Your task to perform on an android device: turn off location history Image 0: 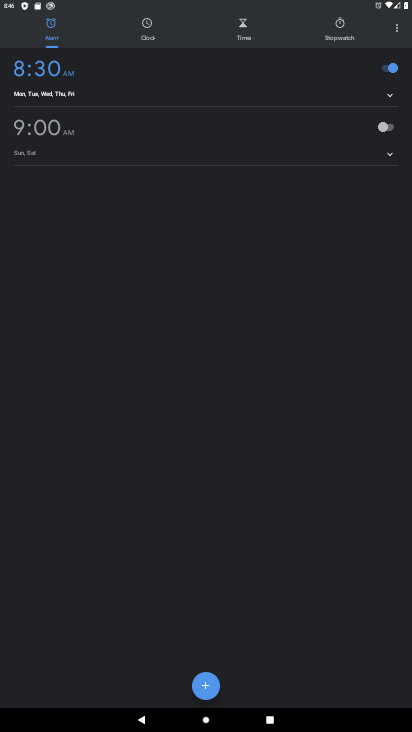
Step 0: press home button
Your task to perform on an android device: turn off location history Image 1: 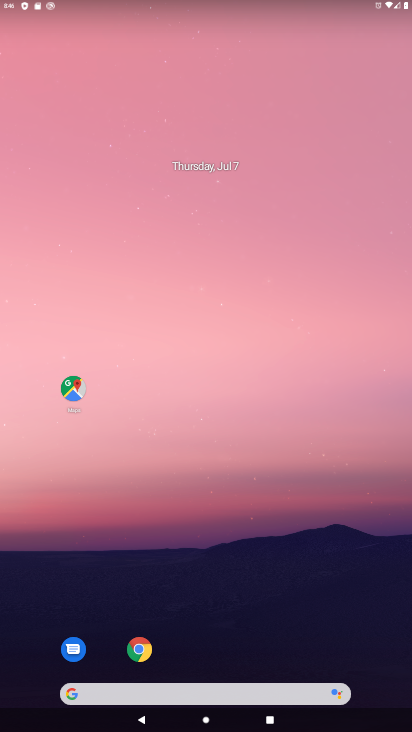
Step 1: drag from (301, 679) to (360, 60)
Your task to perform on an android device: turn off location history Image 2: 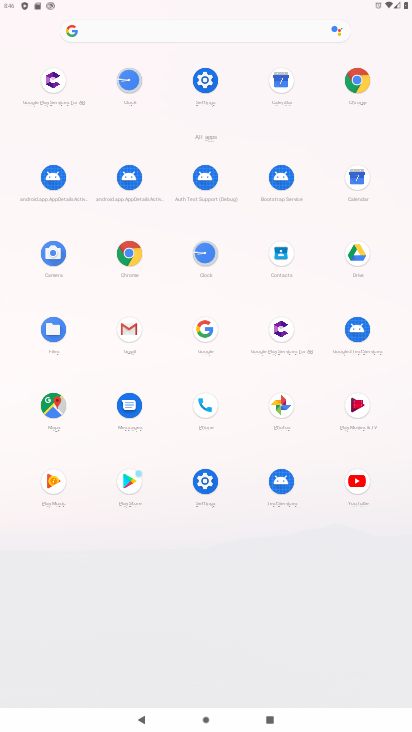
Step 2: click (207, 81)
Your task to perform on an android device: turn off location history Image 3: 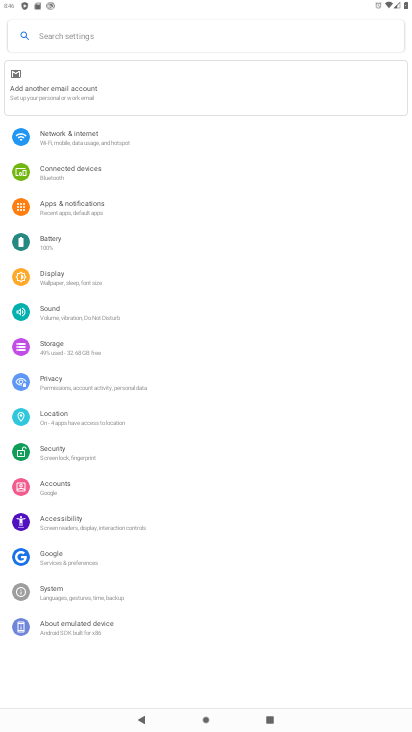
Step 3: click (101, 425)
Your task to perform on an android device: turn off location history Image 4: 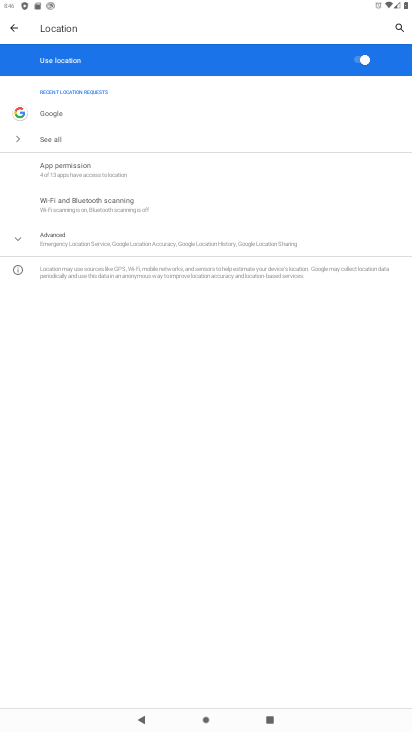
Step 4: click (78, 245)
Your task to perform on an android device: turn off location history Image 5: 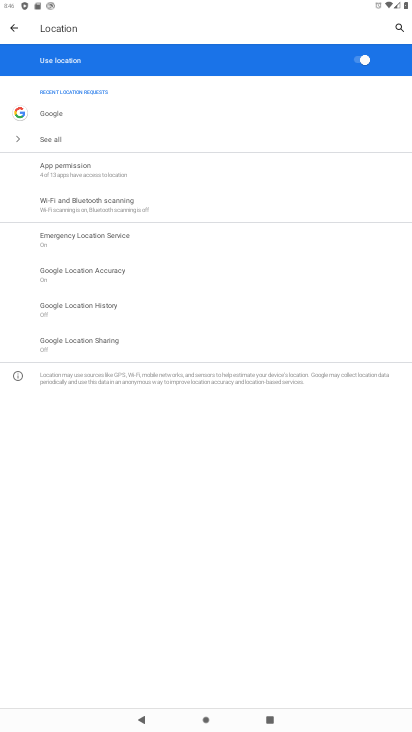
Step 5: click (109, 308)
Your task to perform on an android device: turn off location history Image 6: 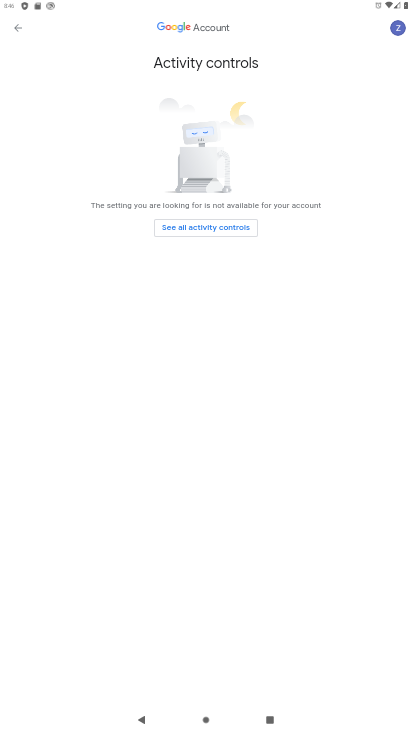
Step 6: click (212, 233)
Your task to perform on an android device: turn off location history Image 7: 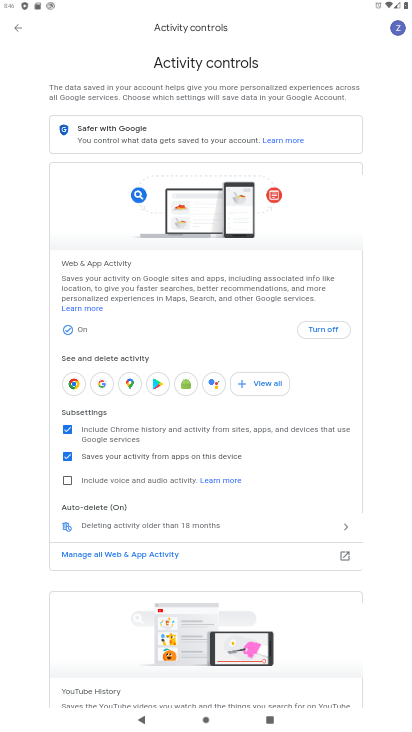
Step 7: click (326, 327)
Your task to perform on an android device: turn off location history Image 8: 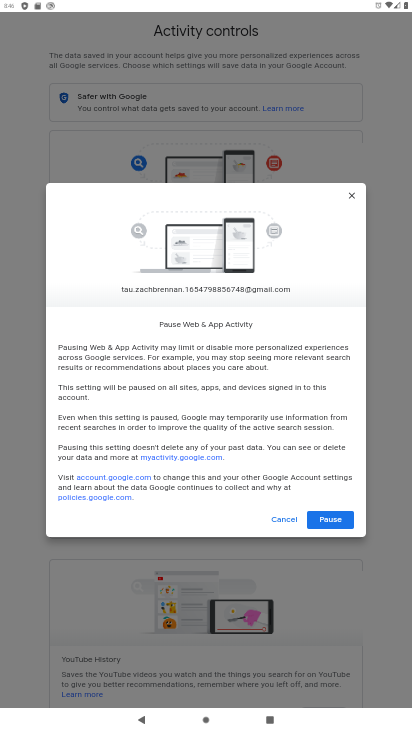
Step 8: click (319, 521)
Your task to perform on an android device: turn off location history Image 9: 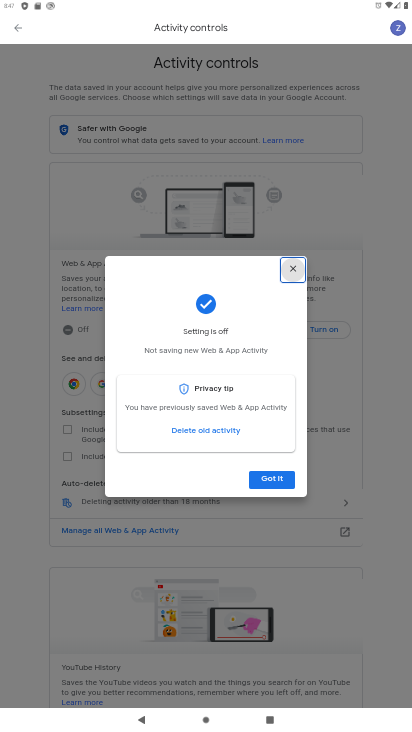
Step 9: click (275, 479)
Your task to perform on an android device: turn off location history Image 10: 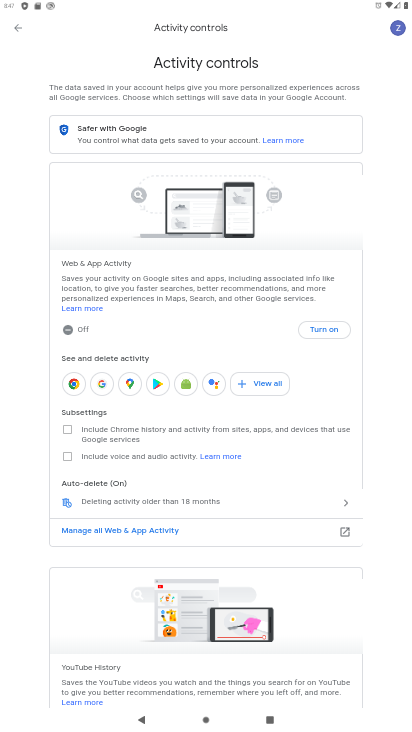
Step 10: task complete